Your task to perform on an android device: see sites visited before in the chrome app Image 0: 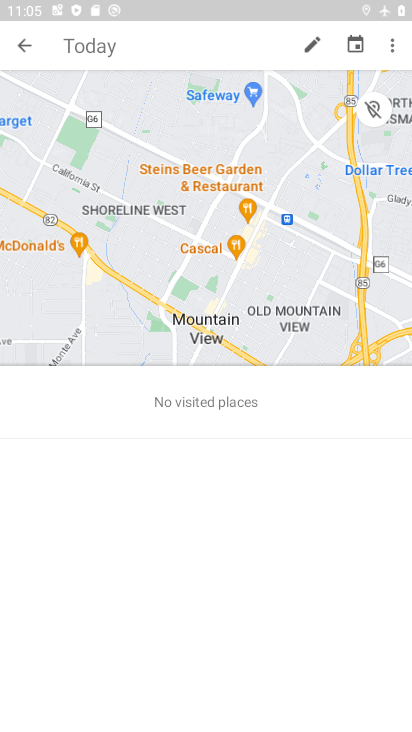
Step 0: press home button
Your task to perform on an android device: see sites visited before in the chrome app Image 1: 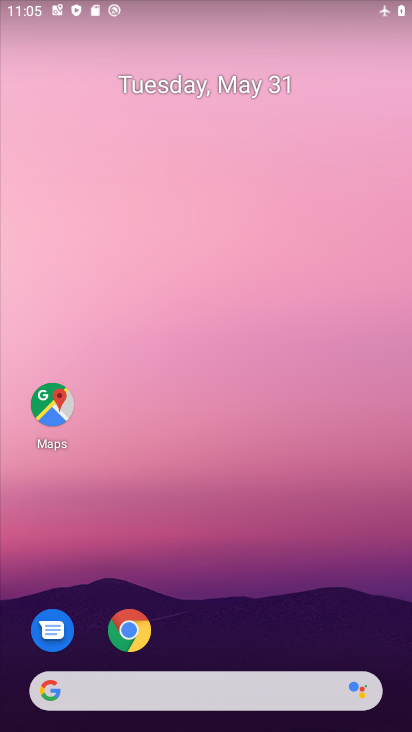
Step 1: drag from (191, 679) to (261, 181)
Your task to perform on an android device: see sites visited before in the chrome app Image 2: 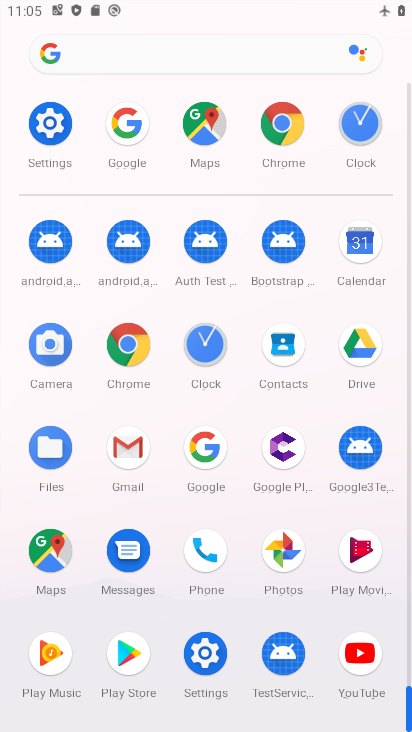
Step 2: click (283, 164)
Your task to perform on an android device: see sites visited before in the chrome app Image 3: 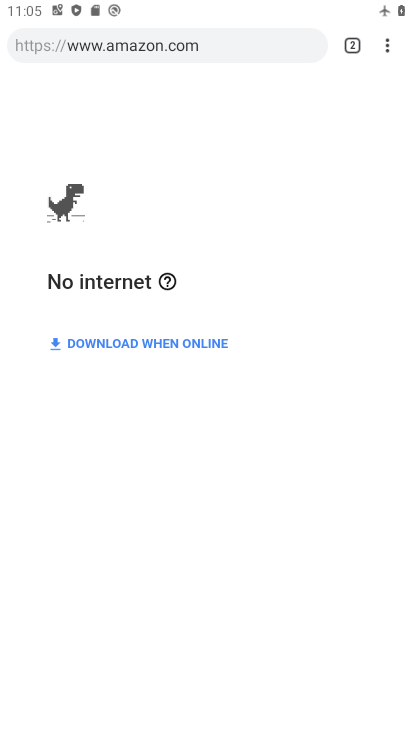
Step 3: click (399, 44)
Your task to perform on an android device: see sites visited before in the chrome app Image 4: 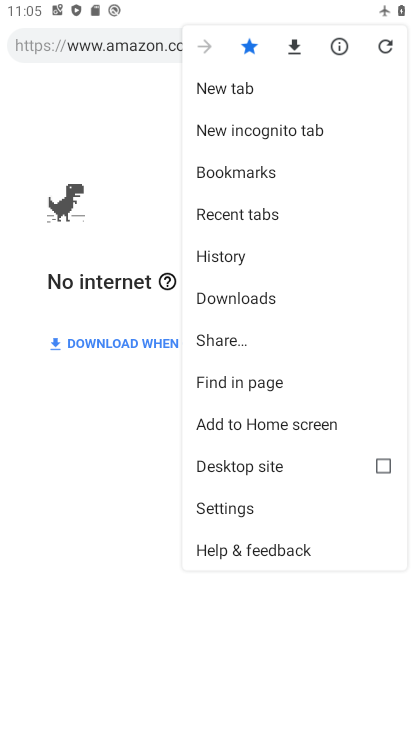
Step 4: click (234, 261)
Your task to perform on an android device: see sites visited before in the chrome app Image 5: 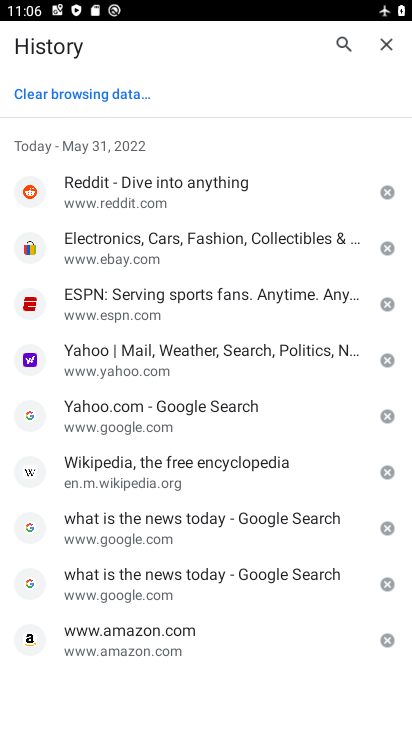
Step 5: task complete